Your task to perform on an android device: Go to settings Image 0: 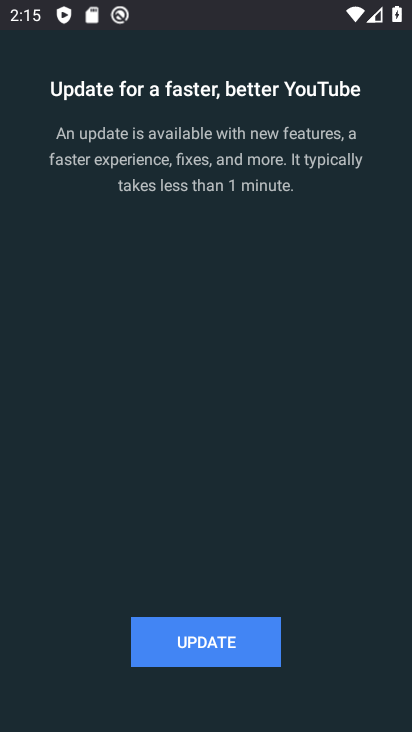
Step 0: press home button
Your task to perform on an android device: Go to settings Image 1: 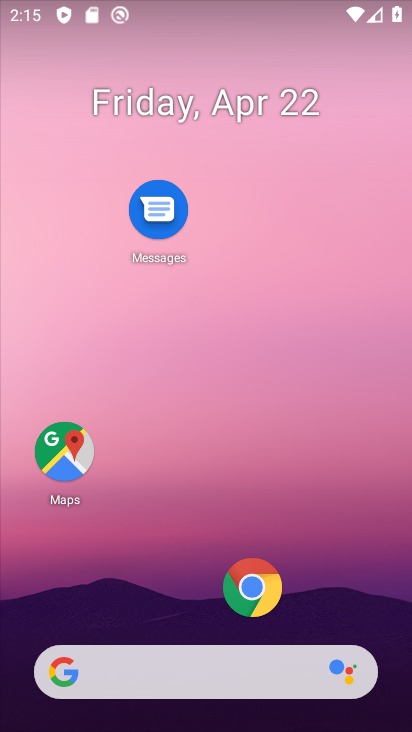
Step 1: drag from (182, 619) to (186, 63)
Your task to perform on an android device: Go to settings Image 2: 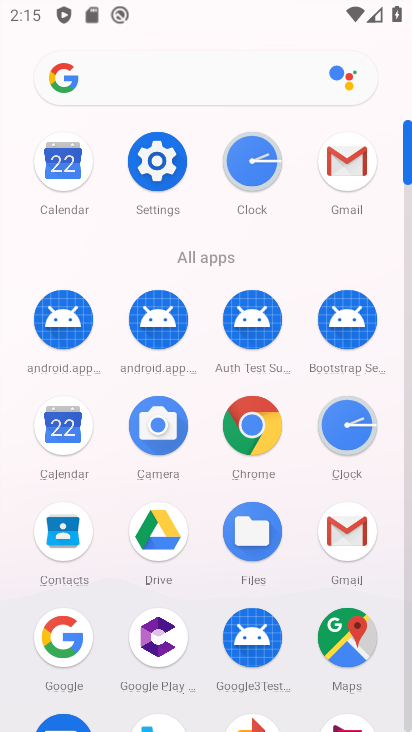
Step 2: click (157, 169)
Your task to perform on an android device: Go to settings Image 3: 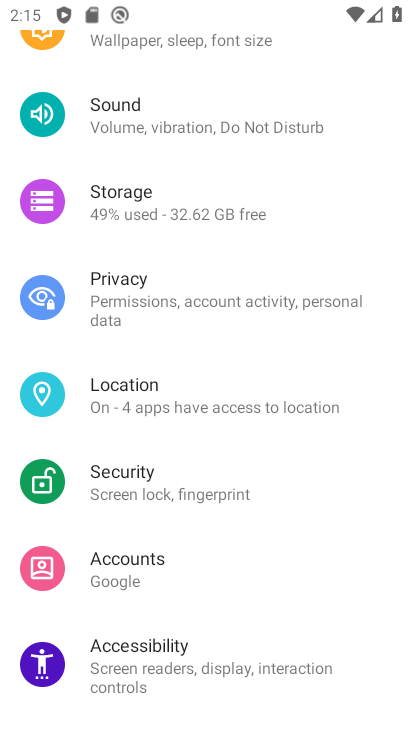
Step 3: task complete